Your task to perform on an android device: uninstall "Viber Messenger" Image 0: 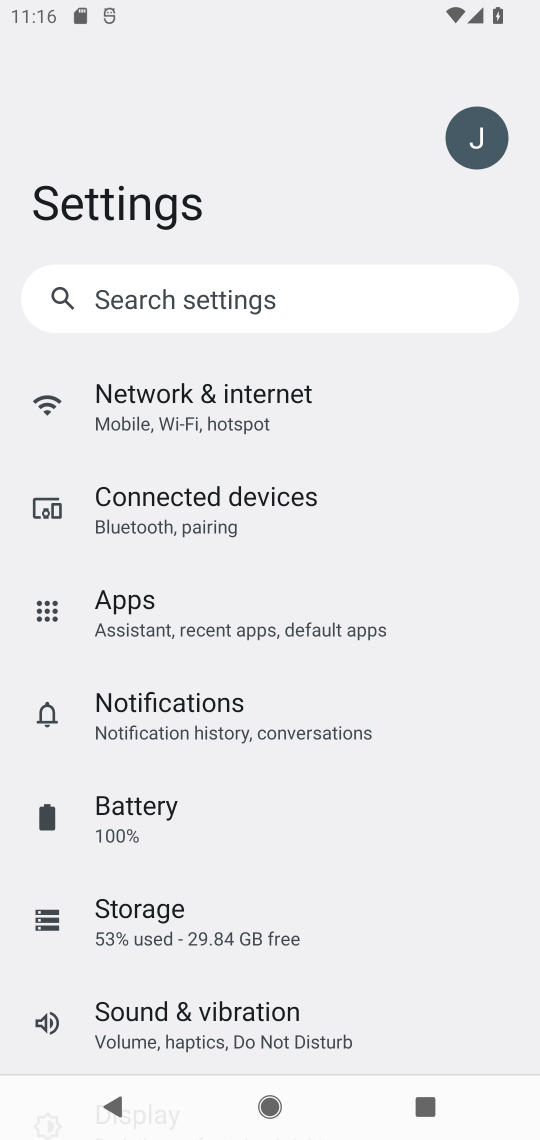
Step 0: press home button
Your task to perform on an android device: uninstall "Viber Messenger" Image 1: 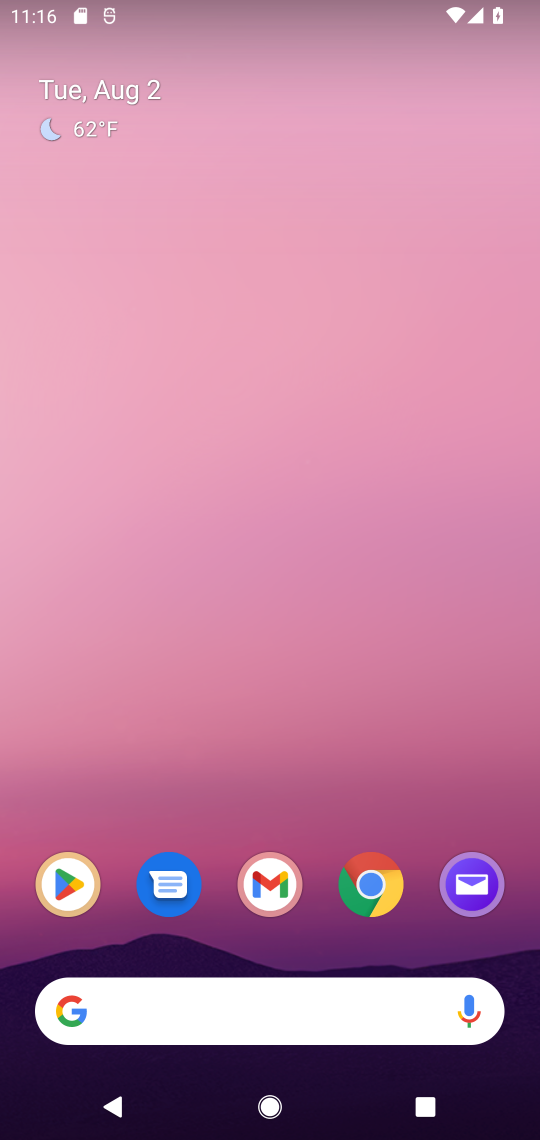
Step 1: click (57, 900)
Your task to perform on an android device: uninstall "Viber Messenger" Image 2: 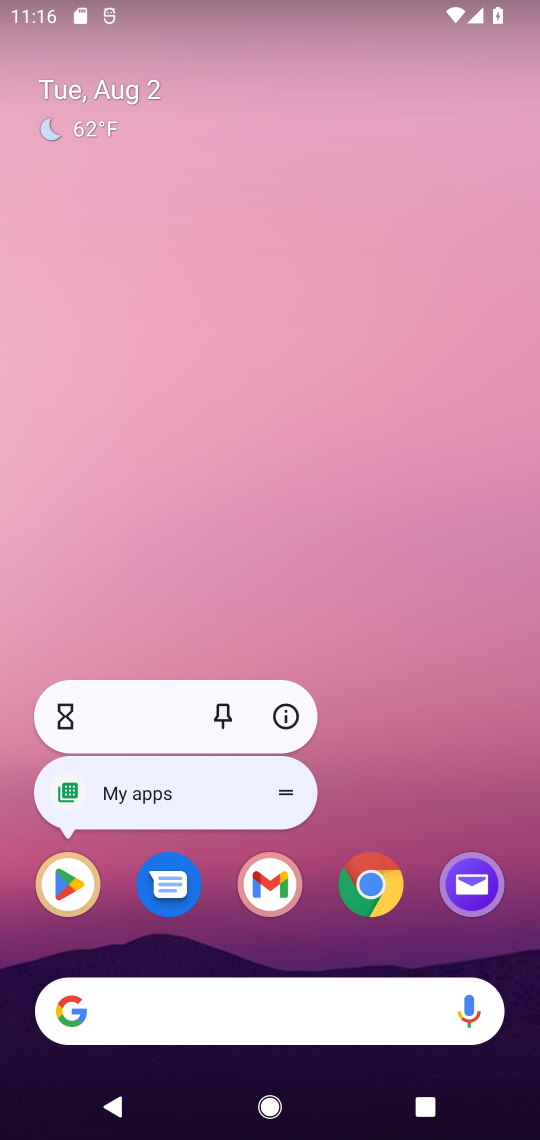
Step 2: click (70, 870)
Your task to perform on an android device: uninstall "Viber Messenger" Image 3: 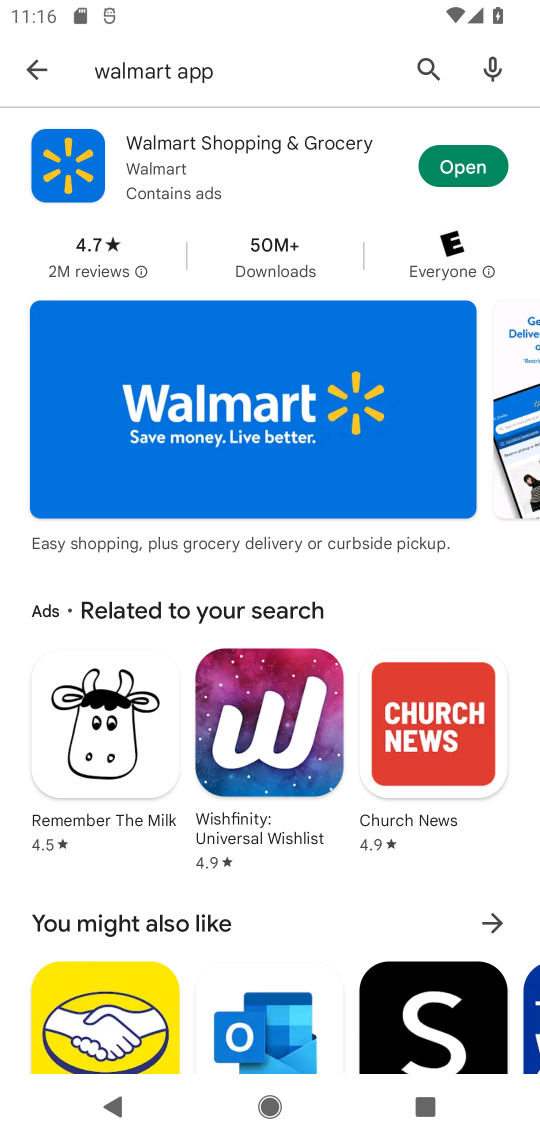
Step 3: click (169, 73)
Your task to perform on an android device: uninstall "Viber Messenger" Image 4: 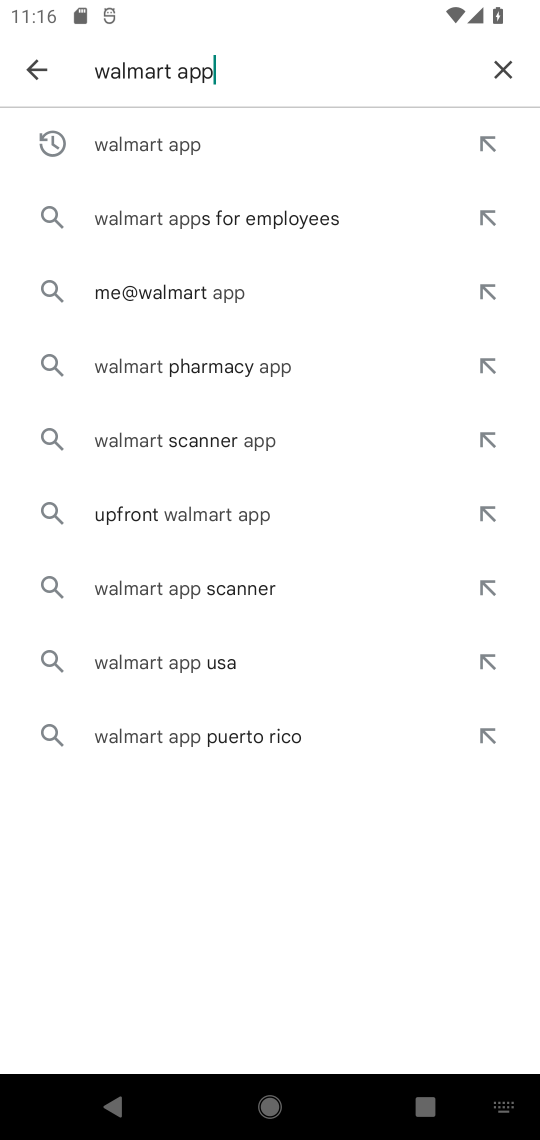
Step 4: click (514, 59)
Your task to perform on an android device: uninstall "Viber Messenger" Image 5: 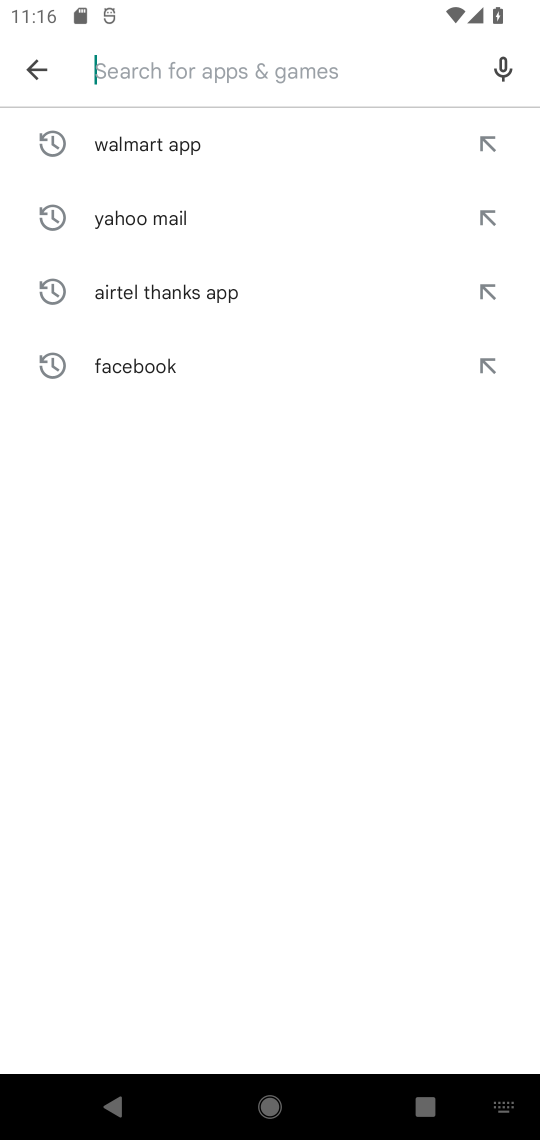
Step 5: type "viber messenger"
Your task to perform on an android device: uninstall "Viber Messenger" Image 6: 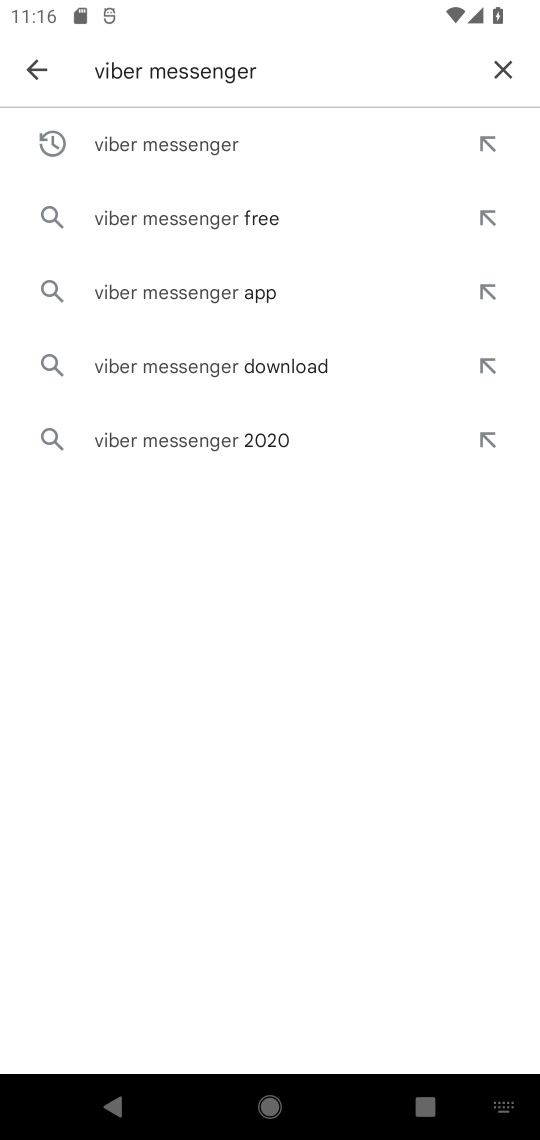
Step 6: click (225, 157)
Your task to perform on an android device: uninstall "Viber Messenger" Image 7: 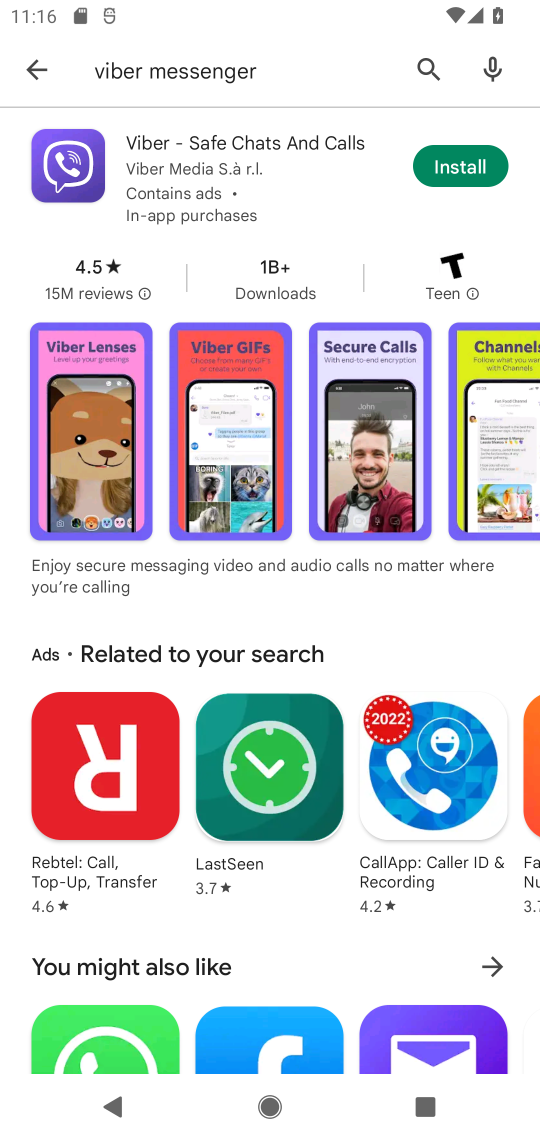
Step 7: task complete